Your task to perform on an android device: open chrome and create a bookmark for the current page Image 0: 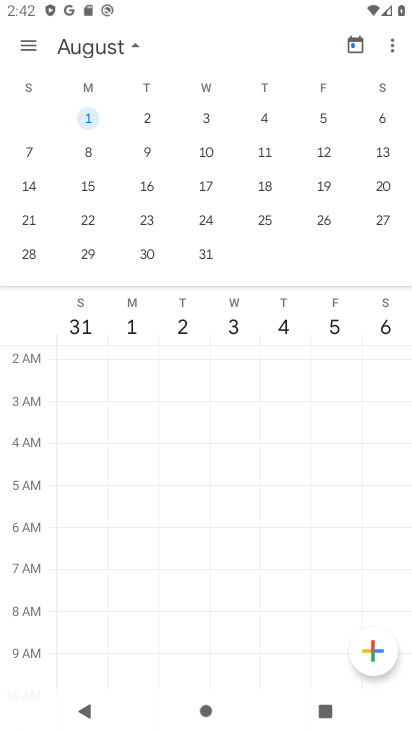
Step 0: press home button
Your task to perform on an android device: open chrome and create a bookmark for the current page Image 1: 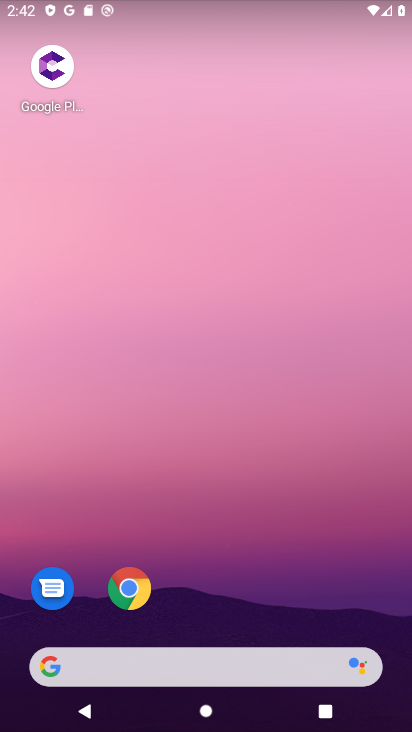
Step 1: click (141, 592)
Your task to perform on an android device: open chrome and create a bookmark for the current page Image 2: 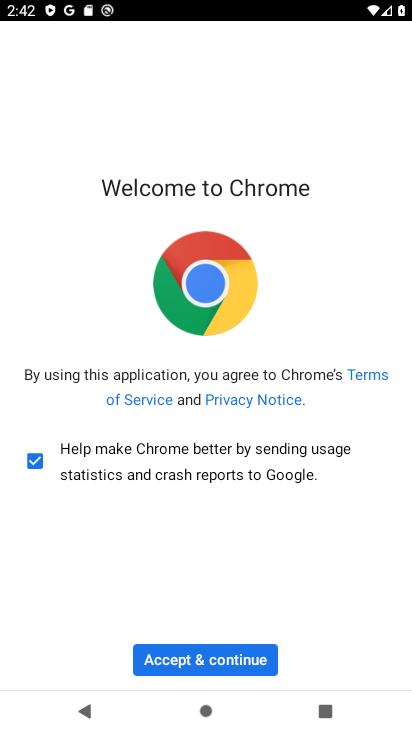
Step 2: click (252, 657)
Your task to perform on an android device: open chrome and create a bookmark for the current page Image 3: 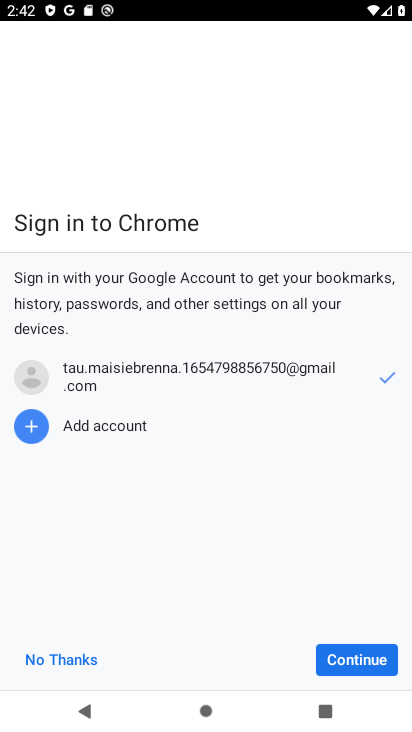
Step 3: click (348, 663)
Your task to perform on an android device: open chrome and create a bookmark for the current page Image 4: 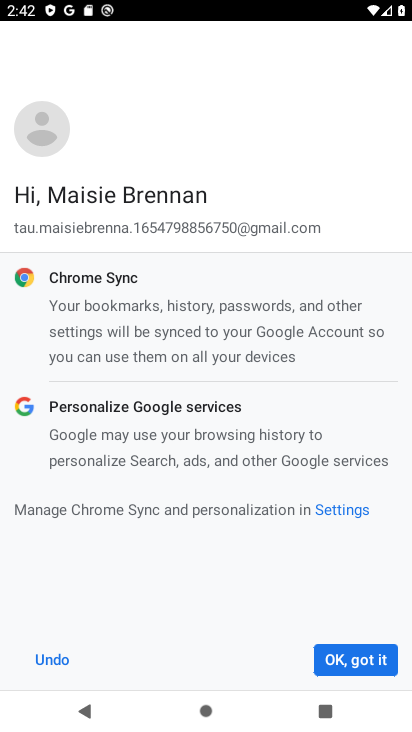
Step 4: click (348, 663)
Your task to perform on an android device: open chrome and create a bookmark for the current page Image 5: 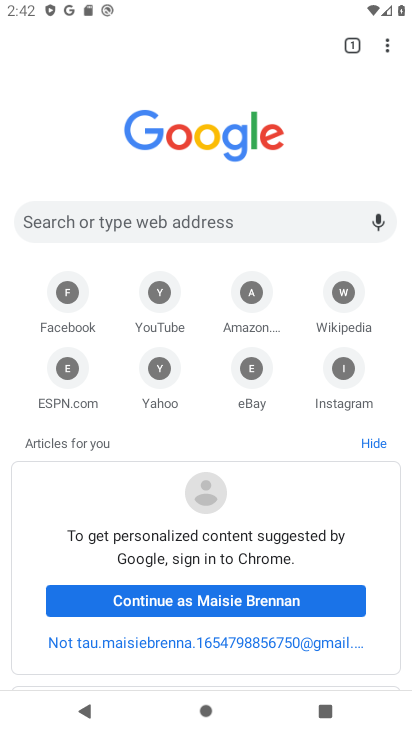
Step 5: click (358, 658)
Your task to perform on an android device: open chrome and create a bookmark for the current page Image 6: 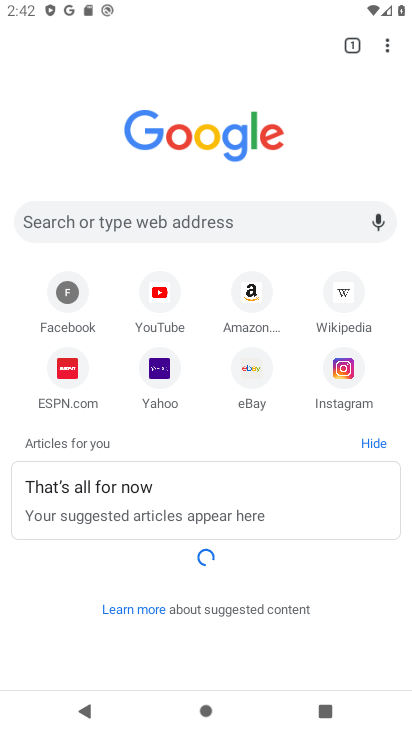
Step 6: click (393, 45)
Your task to perform on an android device: open chrome and create a bookmark for the current page Image 7: 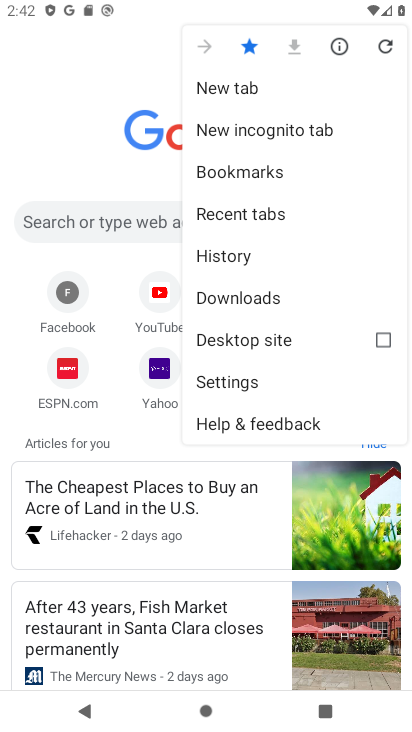
Step 7: task complete